Your task to perform on an android device: change notifications settings Image 0: 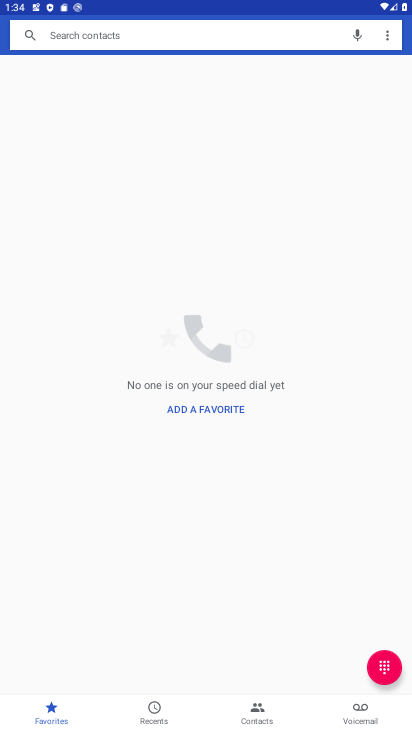
Step 0: press home button
Your task to perform on an android device: change notifications settings Image 1: 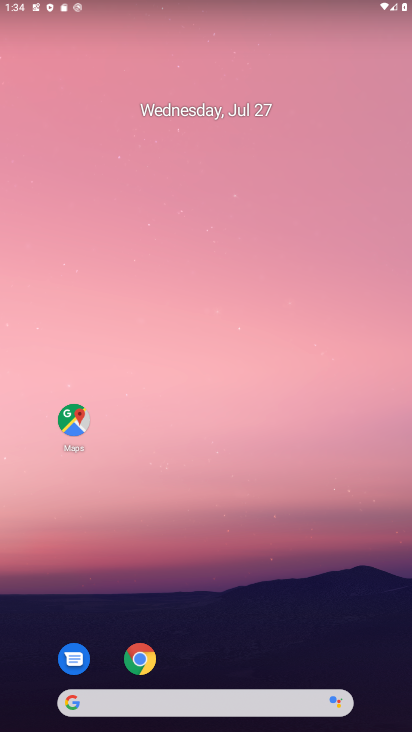
Step 1: drag from (282, 670) to (232, 61)
Your task to perform on an android device: change notifications settings Image 2: 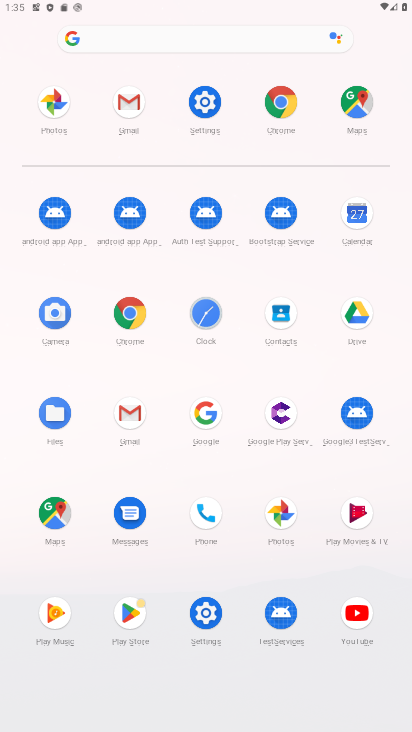
Step 2: click (199, 95)
Your task to perform on an android device: change notifications settings Image 3: 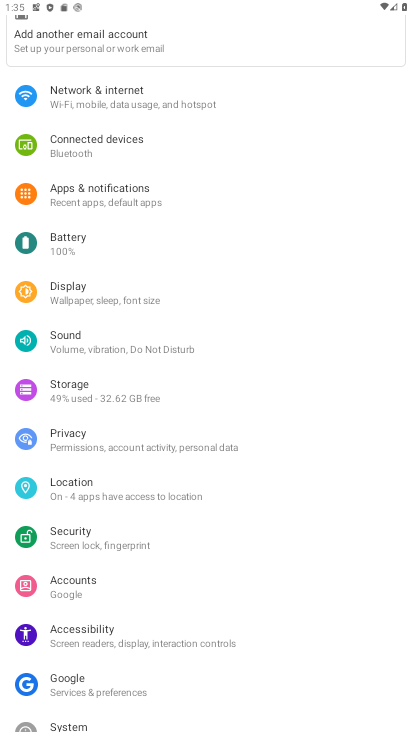
Step 3: click (97, 185)
Your task to perform on an android device: change notifications settings Image 4: 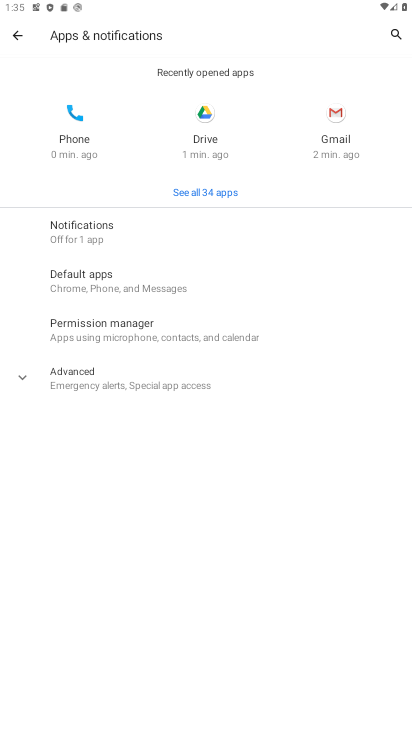
Step 4: click (97, 231)
Your task to perform on an android device: change notifications settings Image 5: 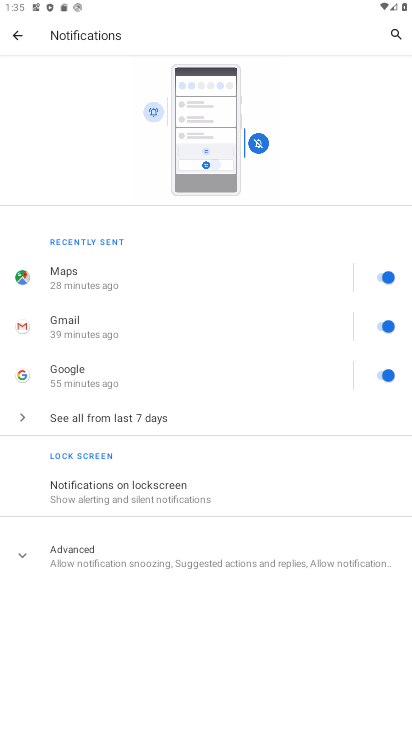
Step 5: click (133, 567)
Your task to perform on an android device: change notifications settings Image 6: 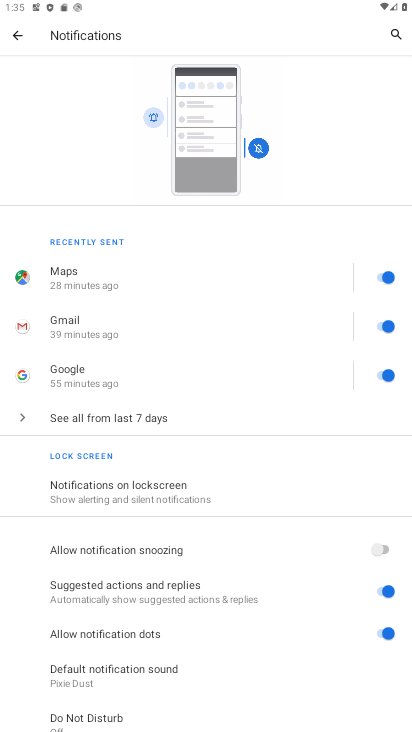
Step 6: task complete